Your task to perform on an android device: Open Wikipedia Image 0: 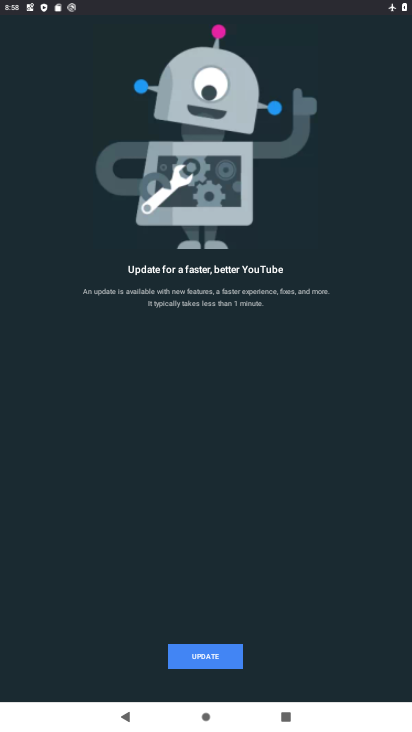
Step 0: press home button
Your task to perform on an android device: Open Wikipedia Image 1: 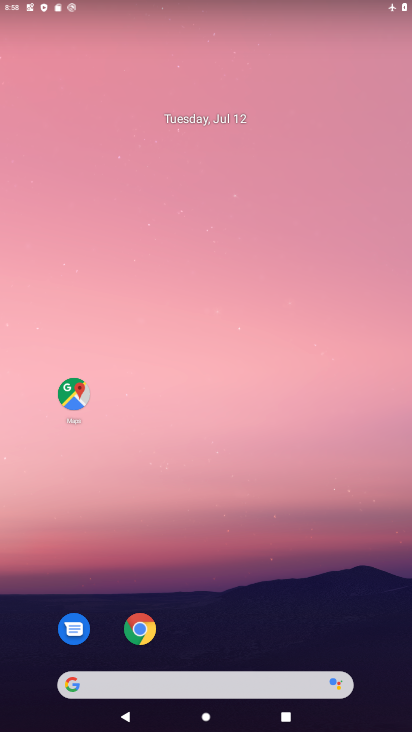
Step 1: drag from (248, 567) to (238, 171)
Your task to perform on an android device: Open Wikipedia Image 2: 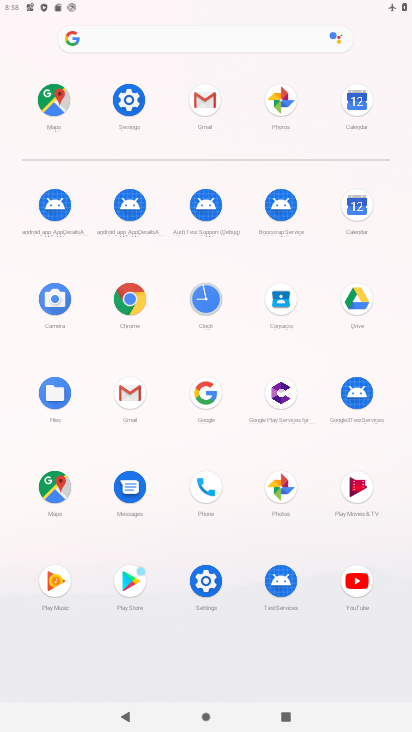
Step 2: click (128, 294)
Your task to perform on an android device: Open Wikipedia Image 3: 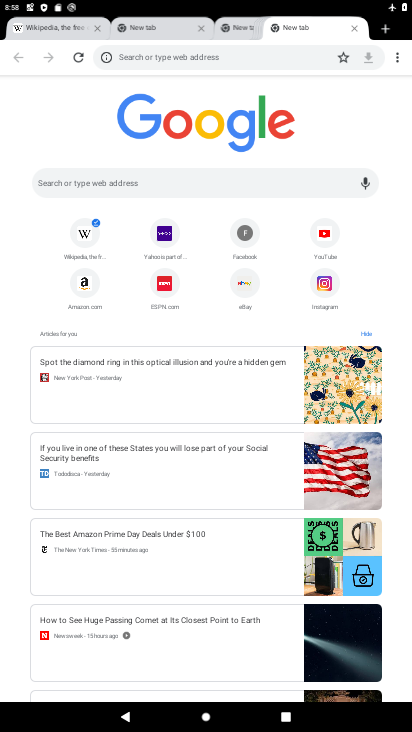
Step 3: click (65, 221)
Your task to perform on an android device: Open Wikipedia Image 4: 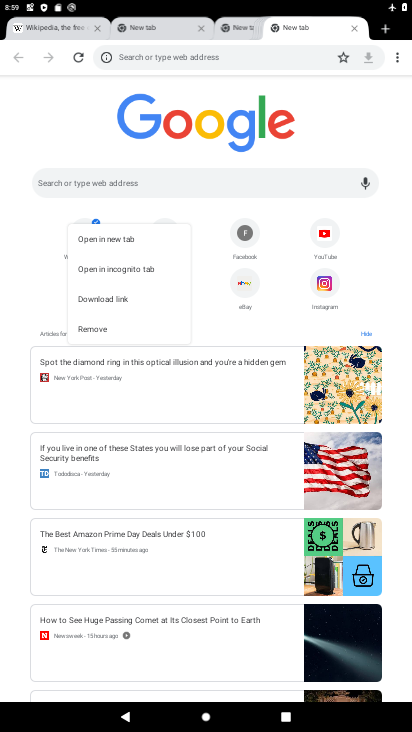
Step 4: click (196, 204)
Your task to perform on an android device: Open Wikipedia Image 5: 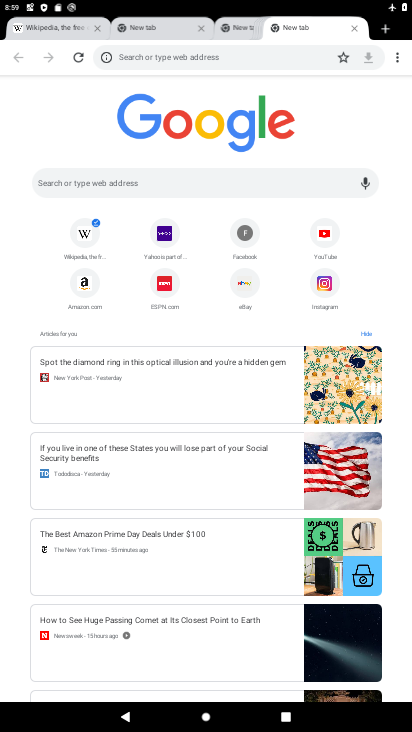
Step 5: click (77, 228)
Your task to perform on an android device: Open Wikipedia Image 6: 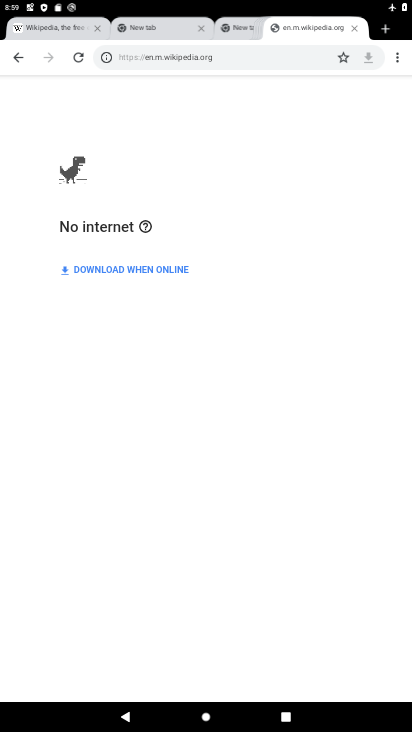
Step 6: task complete